Your task to perform on an android device: allow cookies in the chrome app Image 0: 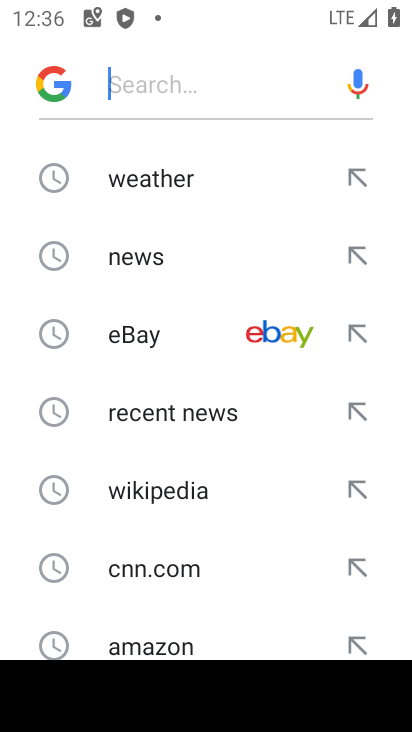
Step 0: task complete